Your task to perform on an android device: Go to Amazon Image 0: 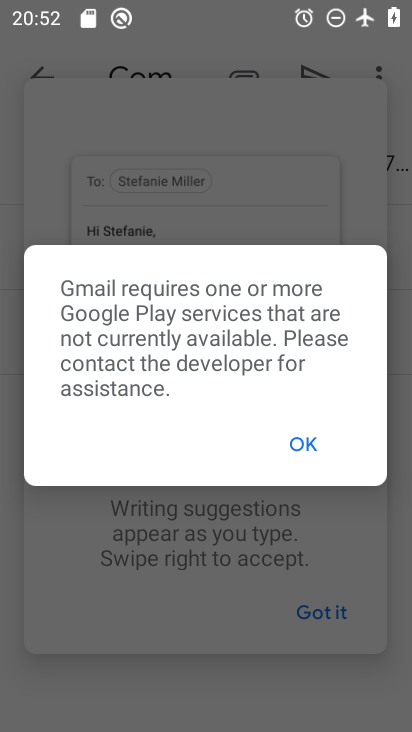
Step 0: press home button
Your task to perform on an android device: Go to Amazon Image 1: 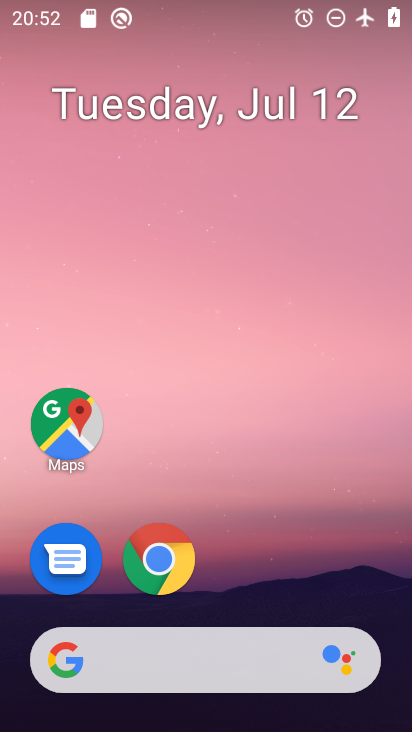
Step 1: drag from (374, 589) to (350, 108)
Your task to perform on an android device: Go to Amazon Image 2: 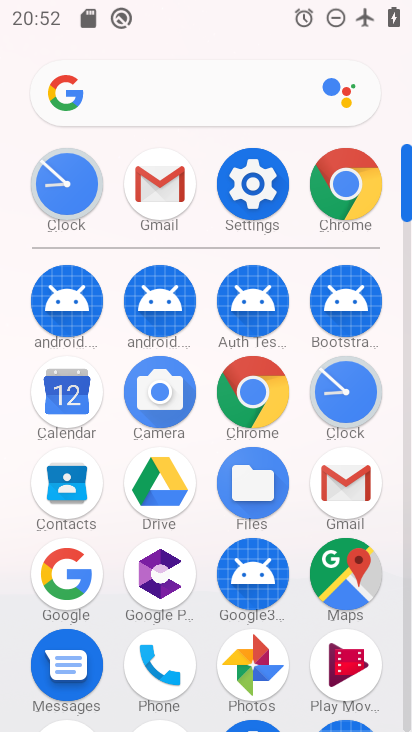
Step 2: click (271, 391)
Your task to perform on an android device: Go to Amazon Image 3: 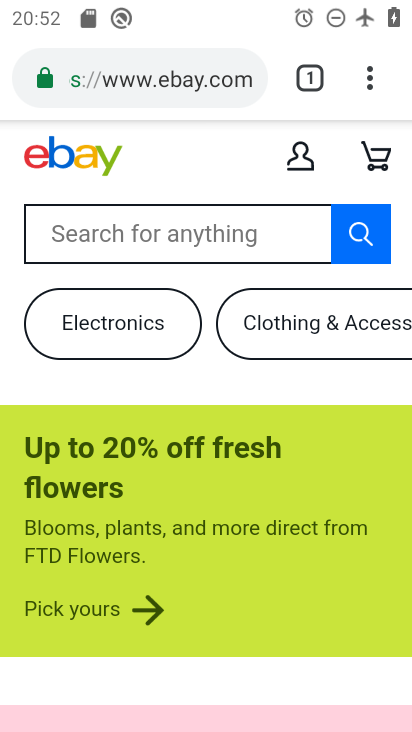
Step 3: click (201, 85)
Your task to perform on an android device: Go to Amazon Image 4: 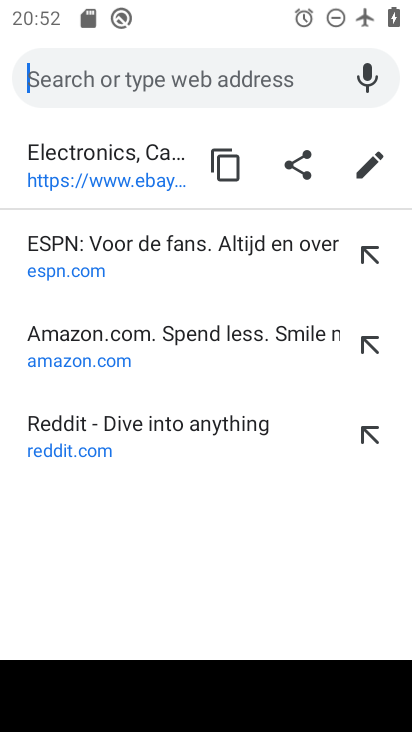
Step 4: type "amazon"
Your task to perform on an android device: Go to Amazon Image 5: 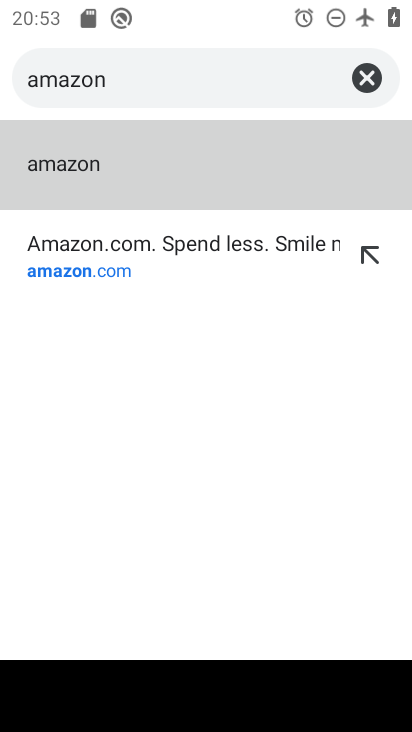
Step 5: click (242, 160)
Your task to perform on an android device: Go to Amazon Image 6: 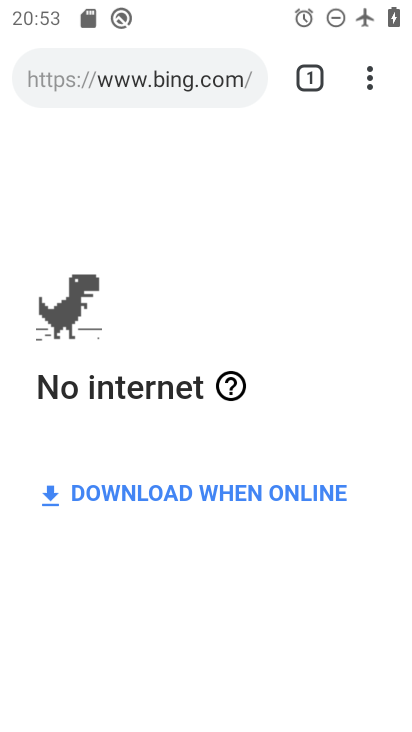
Step 6: task complete